Your task to perform on an android device: When is my next appointment? Image 0: 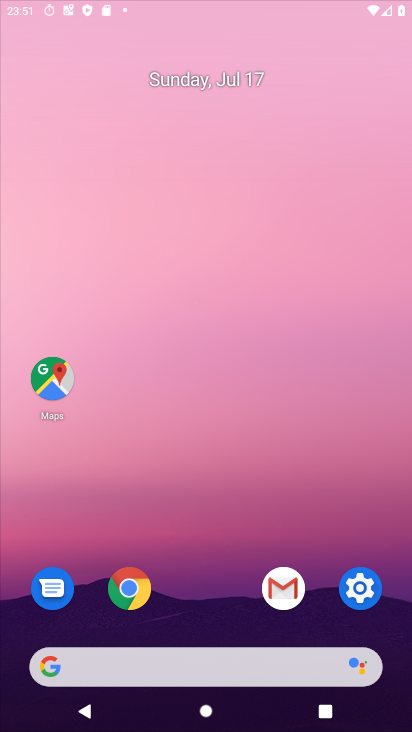
Step 0: press home button
Your task to perform on an android device: When is my next appointment? Image 1: 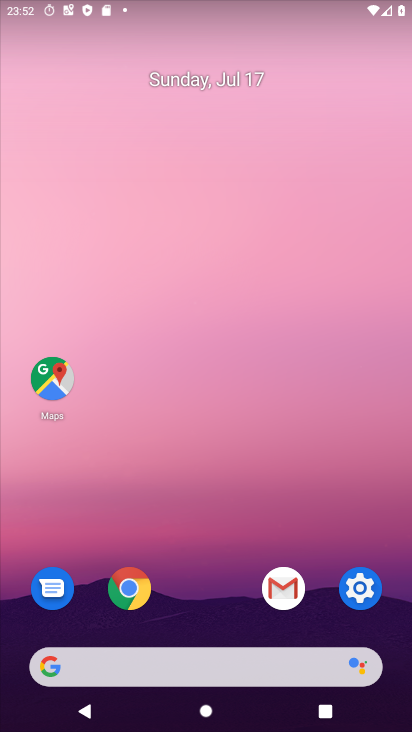
Step 1: drag from (300, 685) to (363, 166)
Your task to perform on an android device: When is my next appointment? Image 2: 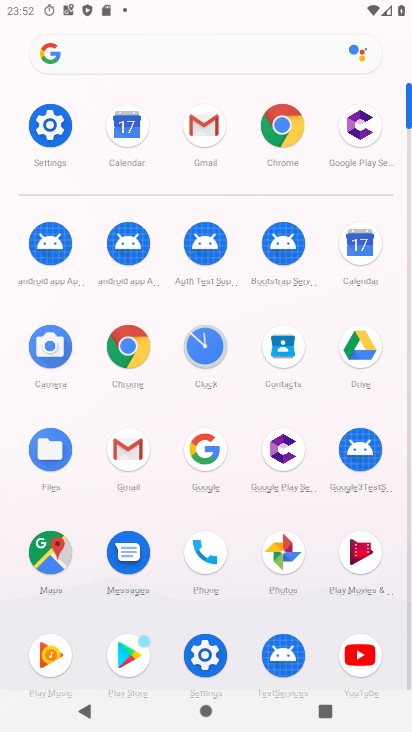
Step 2: click (341, 263)
Your task to perform on an android device: When is my next appointment? Image 3: 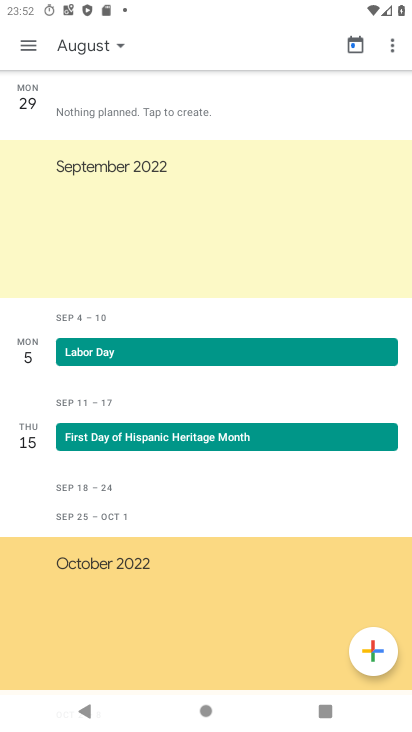
Step 3: click (35, 36)
Your task to perform on an android device: When is my next appointment? Image 4: 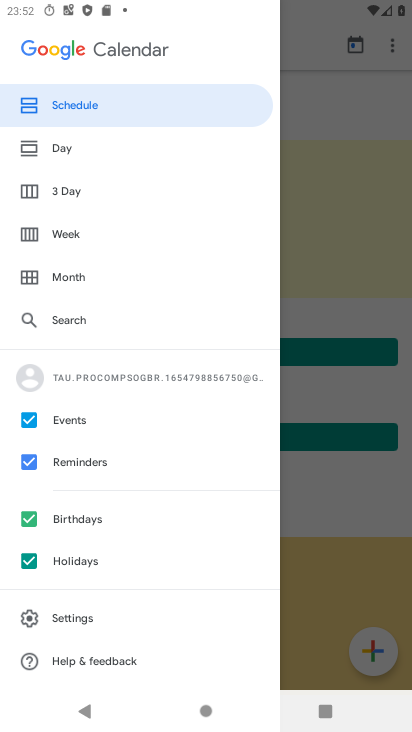
Step 4: click (77, 283)
Your task to perform on an android device: When is my next appointment? Image 5: 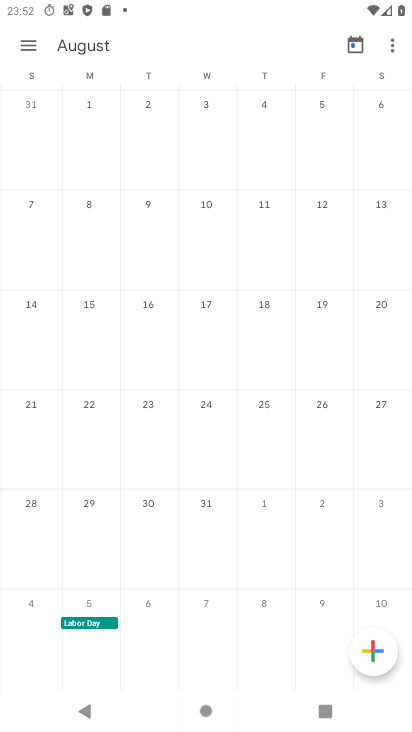
Step 5: drag from (34, 341) to (405, 320)
Your task to perform on an android device: When is my next appointment? Image 6: 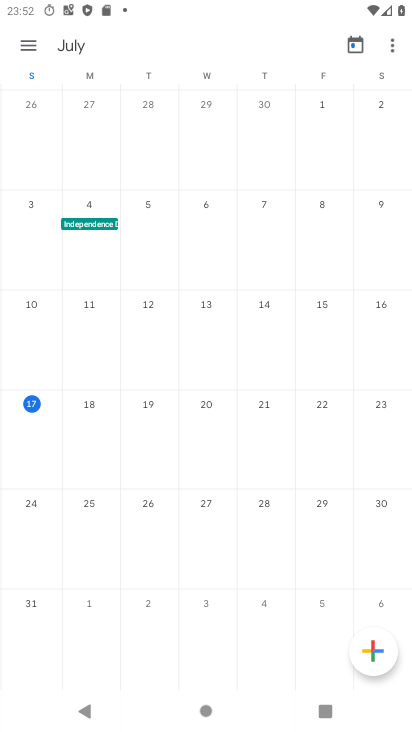
Step 6: click (90, 245)
Your task to perform on an android device: When is my next appointment? Image 7: 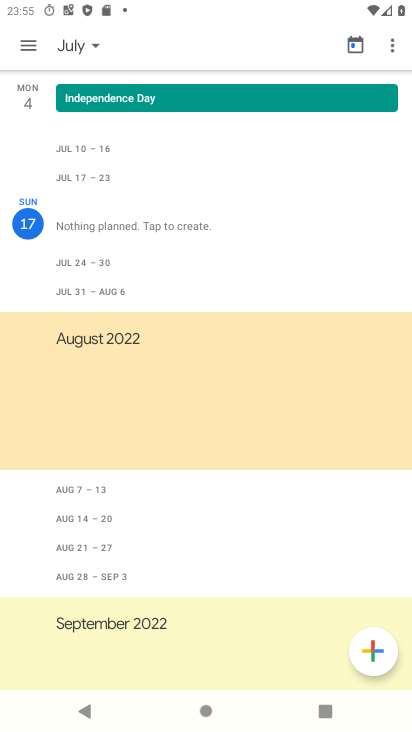
Step 7: task complete